Your task to perform on an android device: turn on bluetooth scan Image 0: 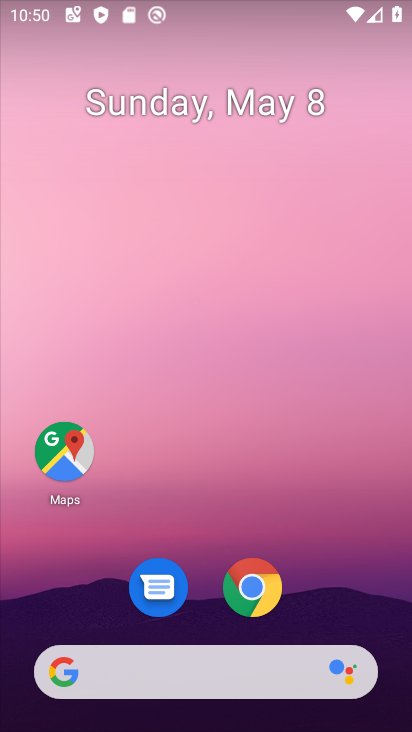
Step 0: drag from (398, 651) to (123, 0)
Your task to perform on an android device: turn on bluetooth scan Image 1: 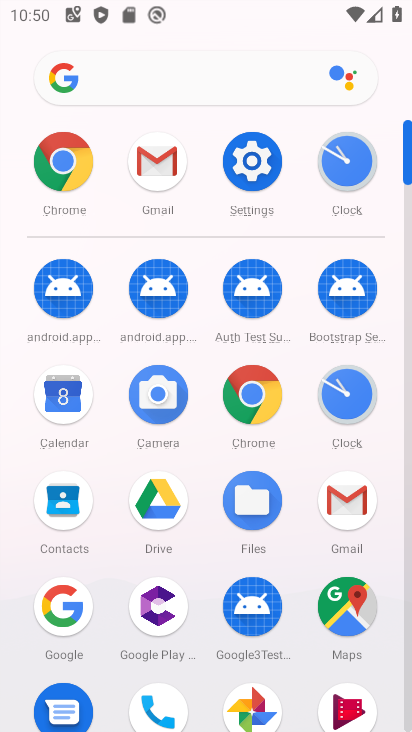
Step 1: click (247, 161)
Your task to perform on an android device: turn on bluetooth scan Image 2: 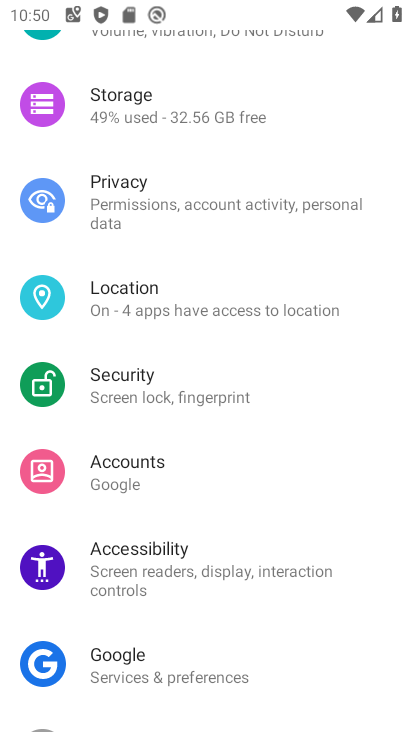
Step 2: click (145, 314)
Your task to perform on an android device: turn on bluetooth scan Image 3: 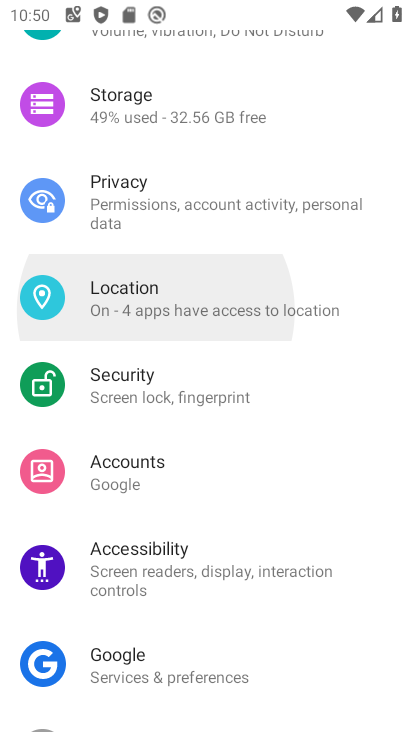
Step 3: click (145, 314)
Your task to perform on an android device: turn on bluetooth scan Image 4: 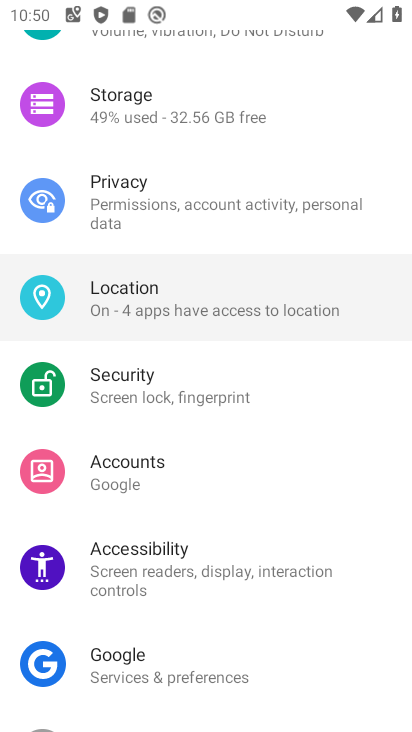
Step 4: click (145, 314)
Your task to perform on an android device: turn on bluetooth scan Image 5: 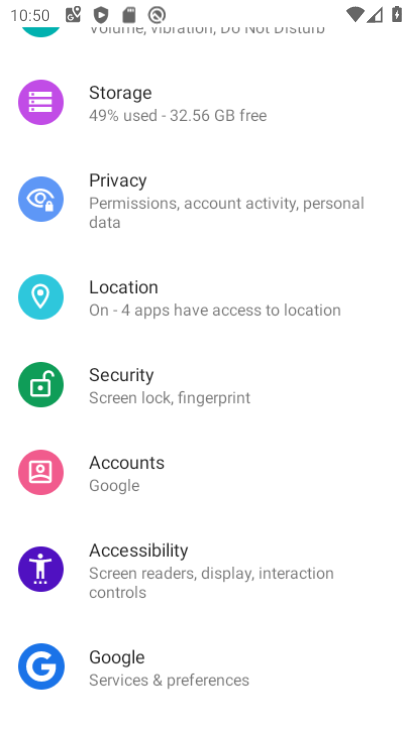
Step 5: click (145, 314)
Your task to perform on an android device: turn on bluetooth scan Image 6: 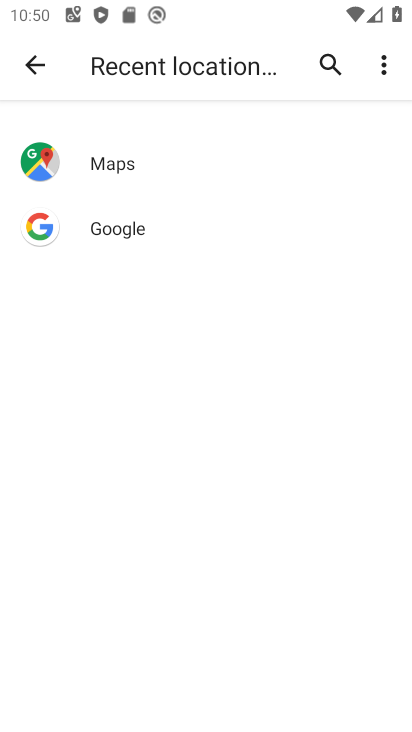
Step 6: click (34, 73)
Your task to perform on an android device: turn on bluetooth scan Image 7: 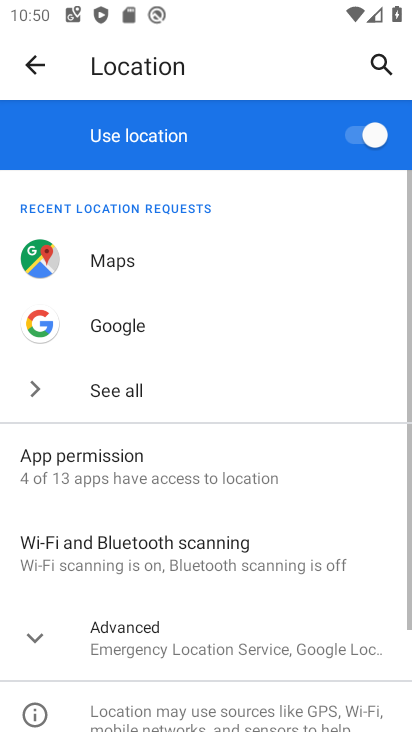
Step 7: click (58, 469)
Your task to perform on an android device: turn on bluetooth scan Image 8: 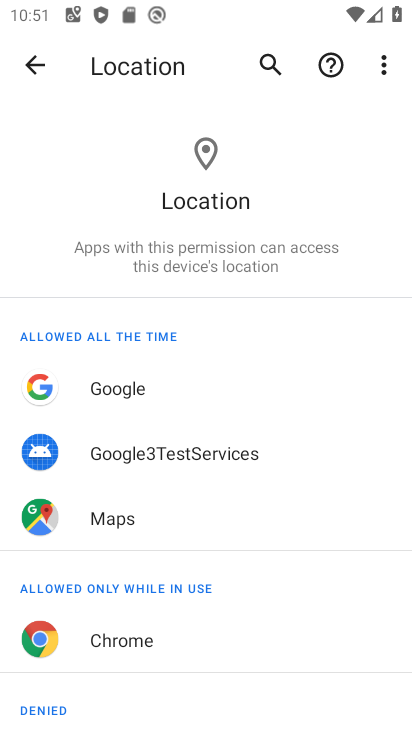
Step 8: click (34, 66)
Your task to perform on an android device: turn on bluetooth scan Image 9: 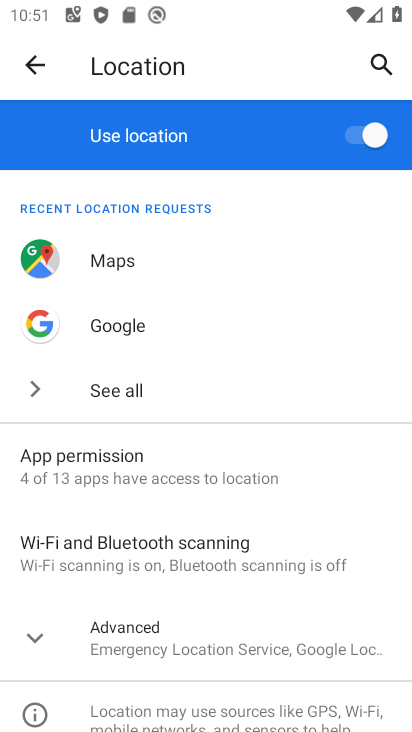
Step 9: click (114, 564)
Your task to perform on an android device: turn on bluetooth scan Image 10: 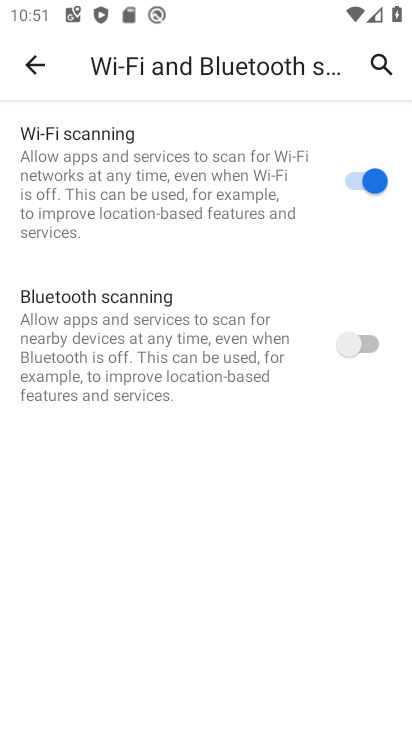
Step 10: click (362, 340)
Your task to perform on an android device: turn on bluetooth scan Image 11: 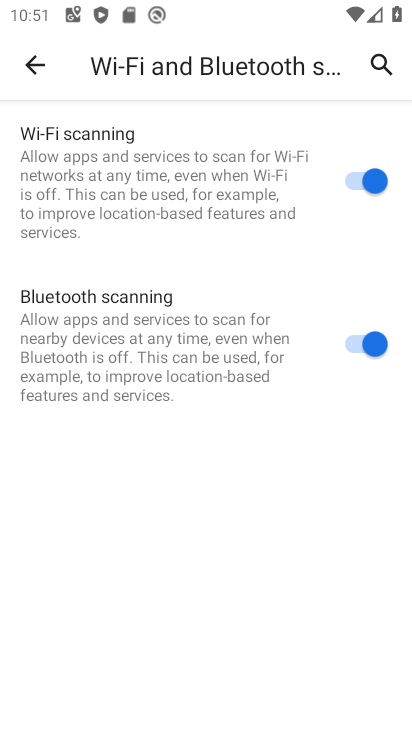
Step 11: task complete